Your task to perform on an android device: open app "Viber Messenger" Image 0: 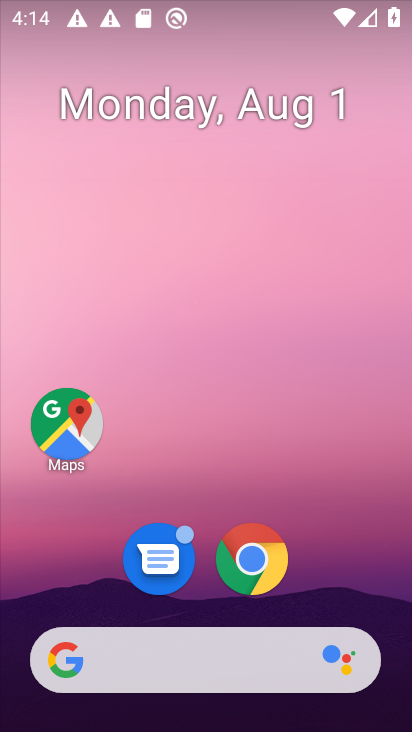
Step 0: drag from (214, 589) to (241, 42)
Your task to perform on an android device: open app "Viber Messenger" Image 1: 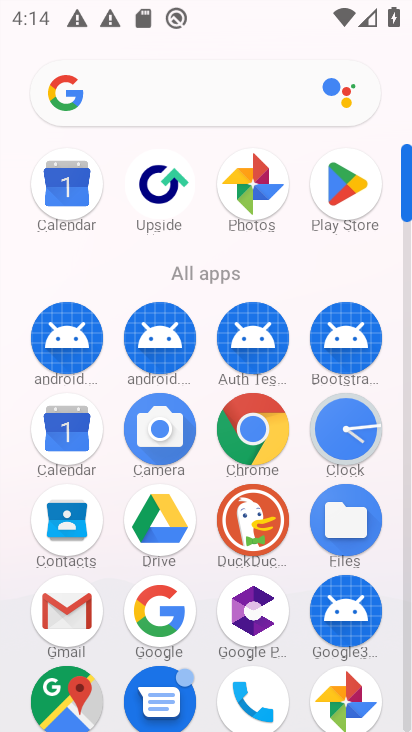
Step 1: click (346, 222)
Your task to perform on an android device: open app "Viber Messenger" Image 2: 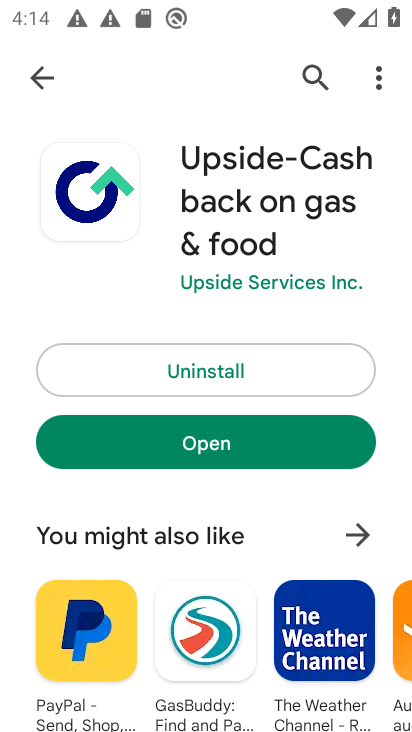
Step 2: click (37, 79)
Your task to perform on an android device: open app "Viber Messenger" Image 3: 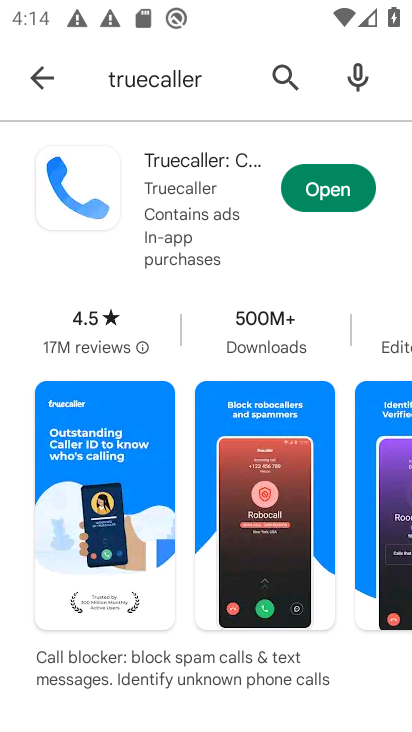
Step 3: click (173, 81)
Your task to perform on an android device: open app "Viber Messenger" Image 4: 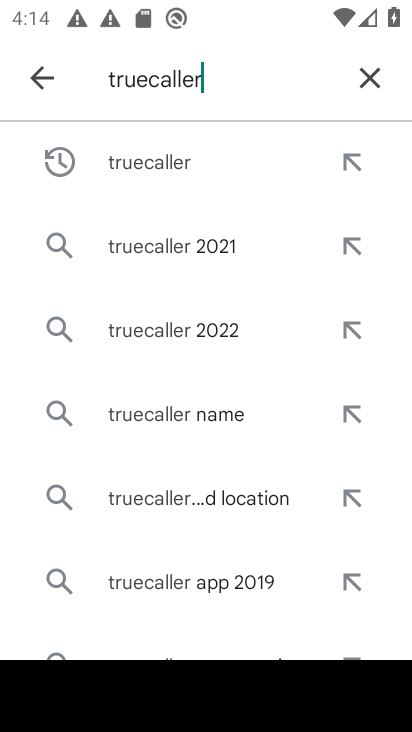
Step 4: click (370, 92)
Your task to perform on an android device: open app "Viber Messenger" Image 5: 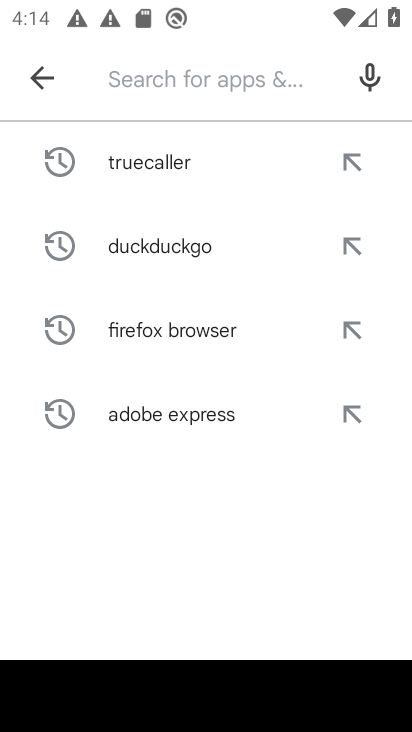
Step 5: type "Viber Messenger"
Your task to perform on an android device: open app "Viber Messenger" Image 6: 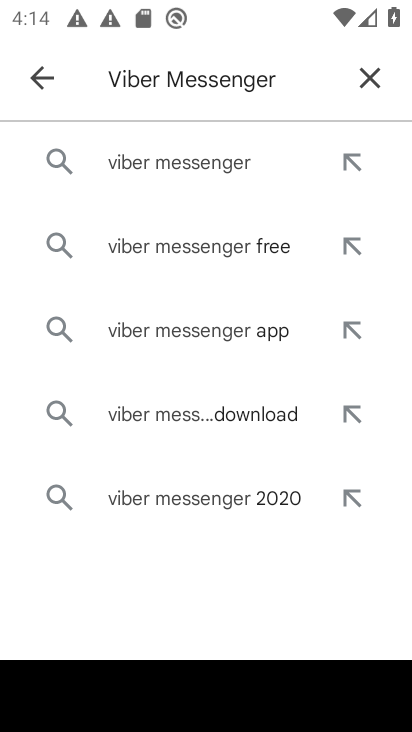
Step 6: click (214, 166)
Your task to perform on an android device: open app "Viber Messenger" Image 7: 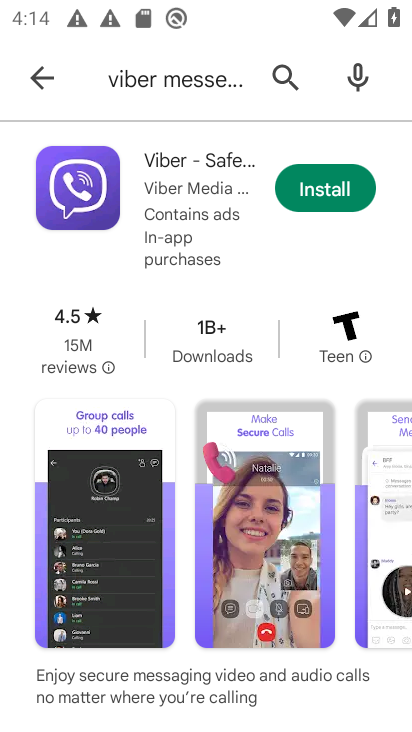
Step 7: task complete